Your task to perform on an android device: open app "Messenger Lite" (install if not already installed) Image 0: 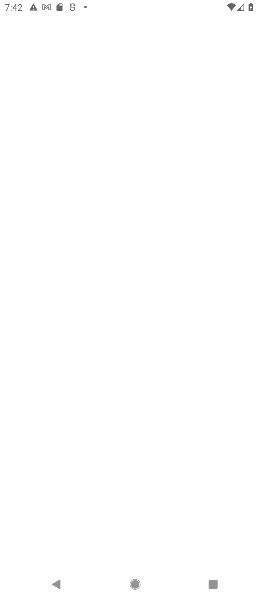
Step 0: press home button
Your task to perform on an android device: open app "Messenger Lite" (install if not already installed) Image 1: 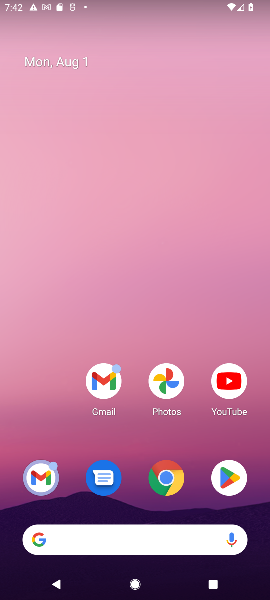
Step 1: click (223, 487)
Your task to perform on an android device: open app "Messenger Lite" (install if not already installed) Image 2: 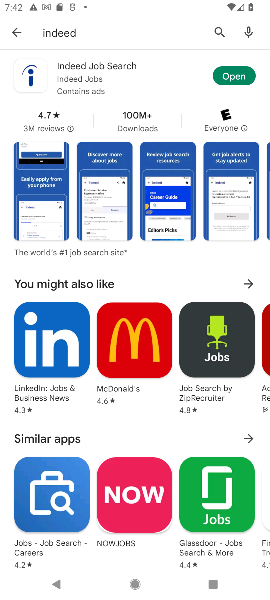
Step 2: click (222, 23)
Your task to perform on an android device: open app "Messenger Lite" (install if not already installed) Image 3: 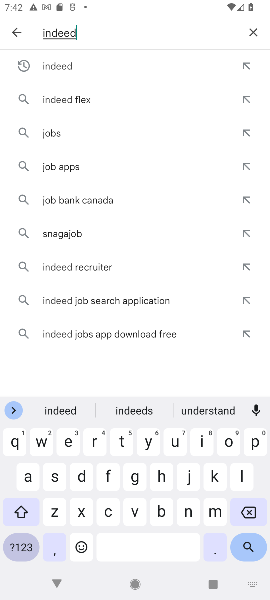
Step 3: click (252, 31)
Your task to perform on an android device: open app "Messenger Lite" (install if not already installed) Image 4: 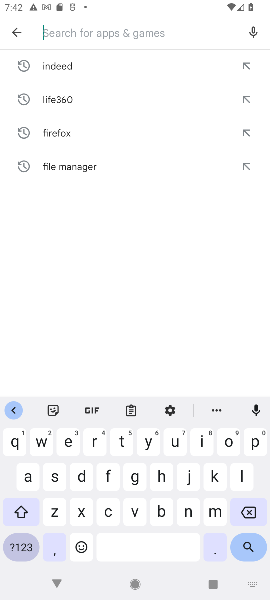
Step 4: click (209, 505)
Your task to perform on an android device: open app "Messenger Lite" (install if not already installed) Image 5: 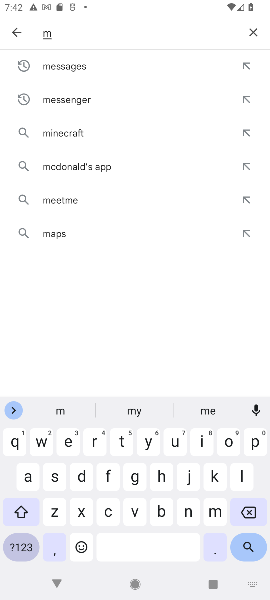
Step 5: click (67, 438)
Your task to perform on an android device: open app "Messenger Lite" (install if not already installed) Image 6: 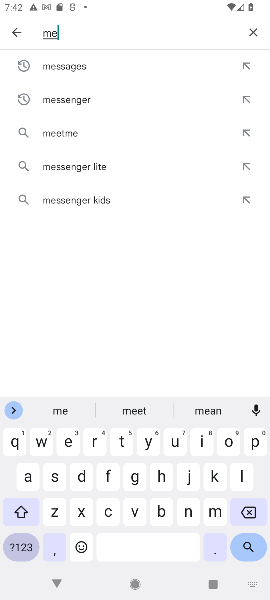
Step 6: click (105, 95)
Your task to perform on an android device: open app "Messenger Lite" (install if not already installed) Image 7: 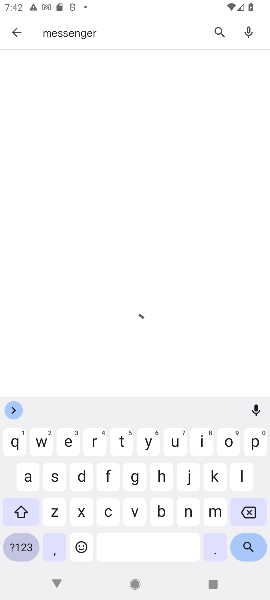
Step 7: click (73, 93)
Your task to perform on an android device: open app "Messenger Lite" (install if not already installed) Image 8: 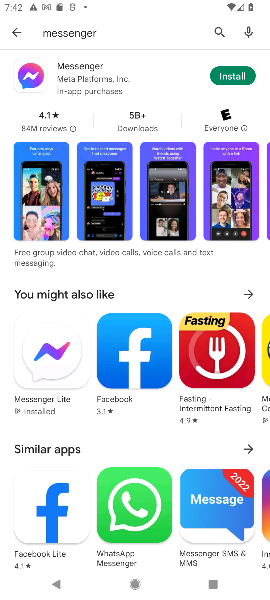
Step 8: click (231, 80)
Your task to perform on an android device: open app "Messenger Lite" (install if not already installed) Image 9: 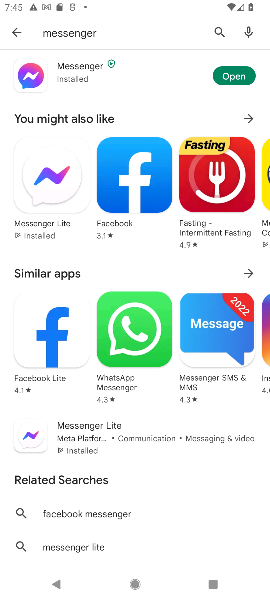
Step 9: click (224, 72)
Your task to perform on an android device: open app "Messenger Lite" (install if not already installed) Image 10: 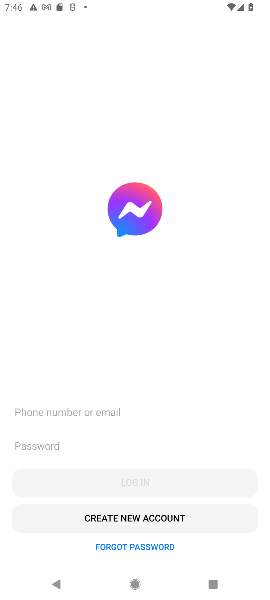
Step 10: task complete